Your task to perform on an android device: snooze an email in the gmail app Image 0: 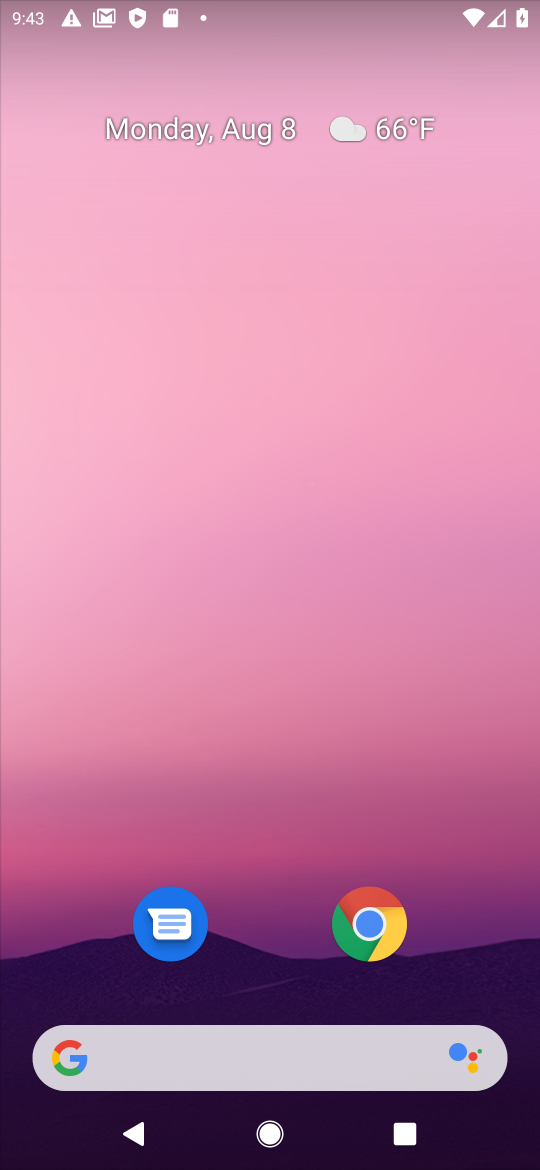
Step 0: drag from (297, 852) to (331, 23)
Your task to perform on an android device: snooze an email in the gmail app Image 1: 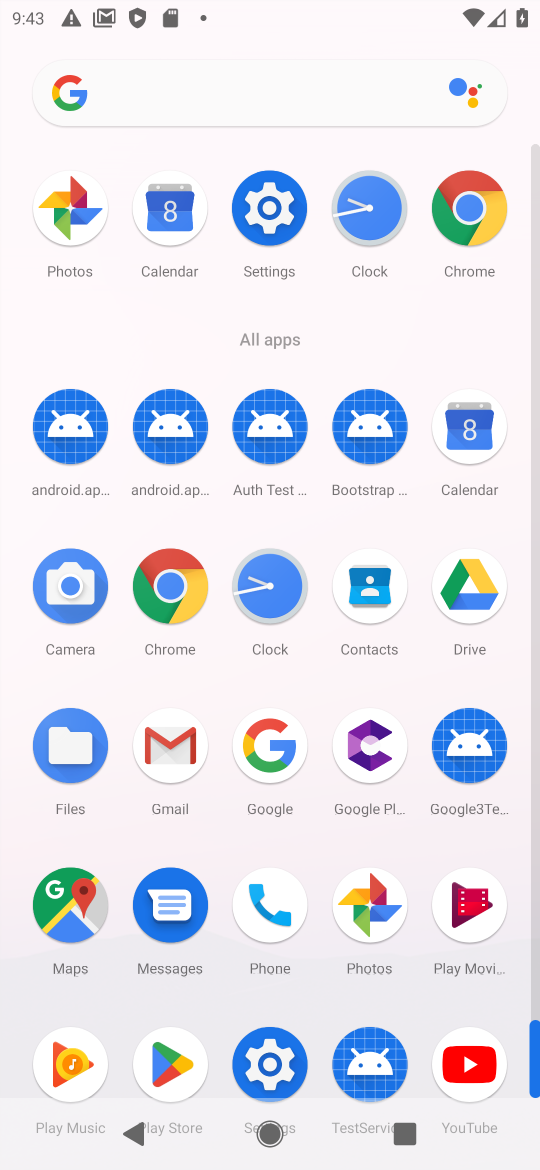
Step 1: click (175, 751)
Your task to perform on an android device: snooze an email in the gmail app Image 2: 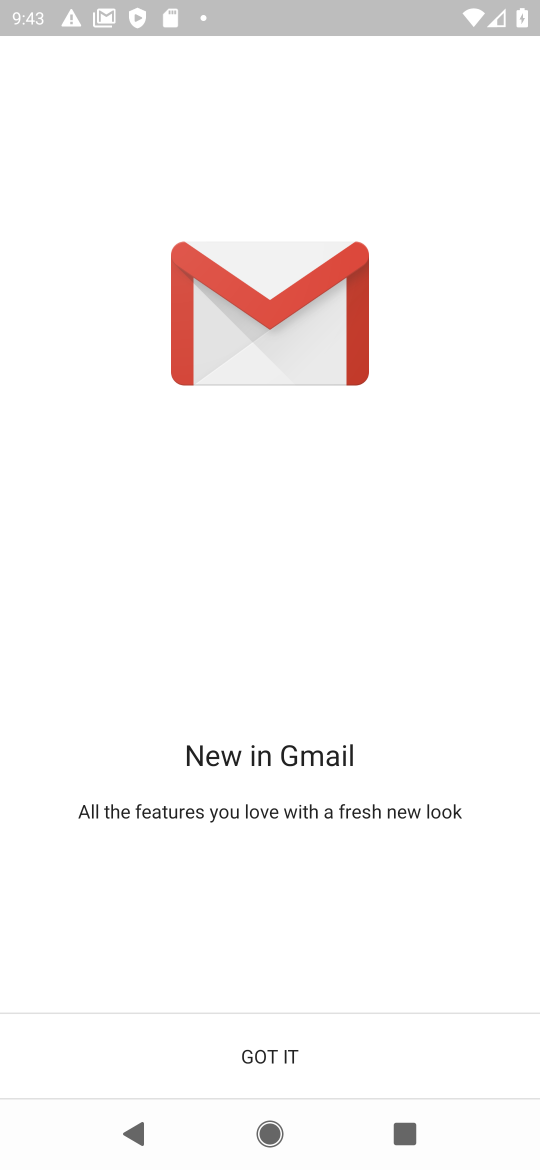
Step 2: click (271, 1072)
Your task to perform on an android device: snooze an email in the gmail app Image 3: 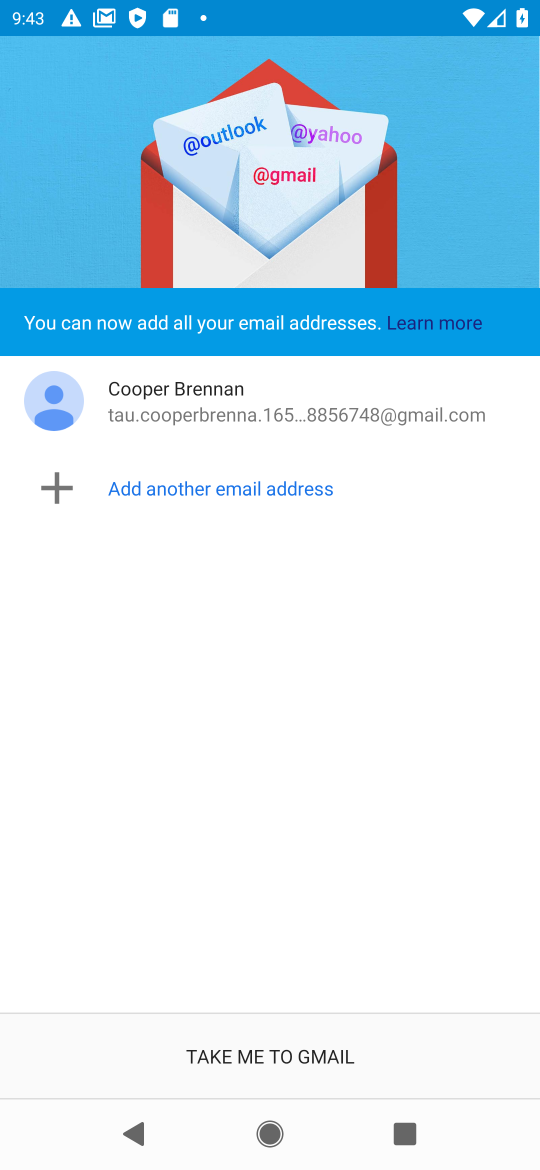
Step 3: click (268, 1058)
Your task to perform on an android device: snooze an email in the gmail app Image 4: 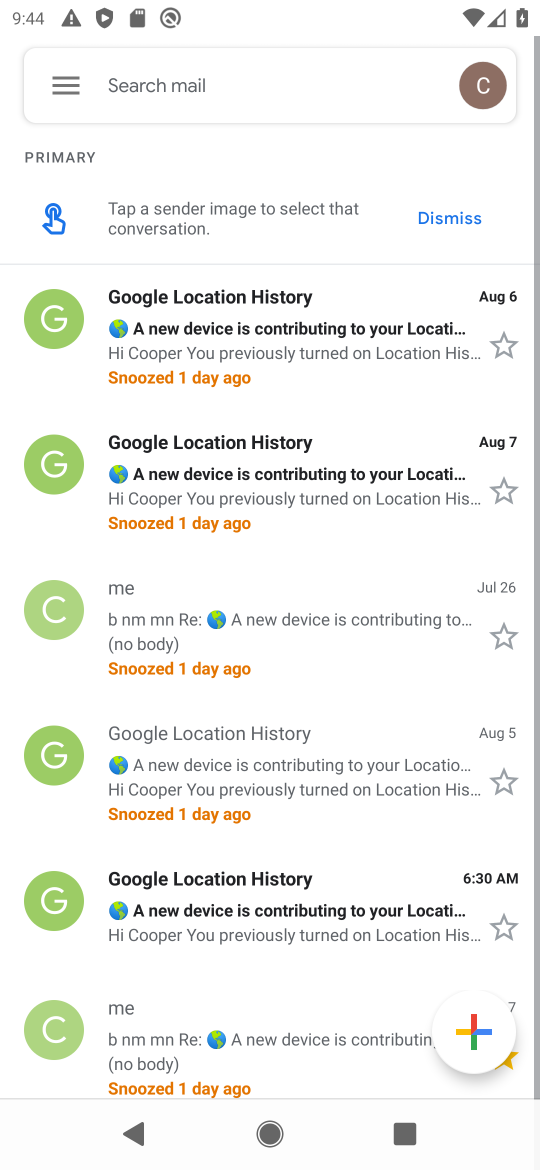
Step 4: click (55, 307)
Your task to perform on an android device: snooze an email in the gmail app Image 5: 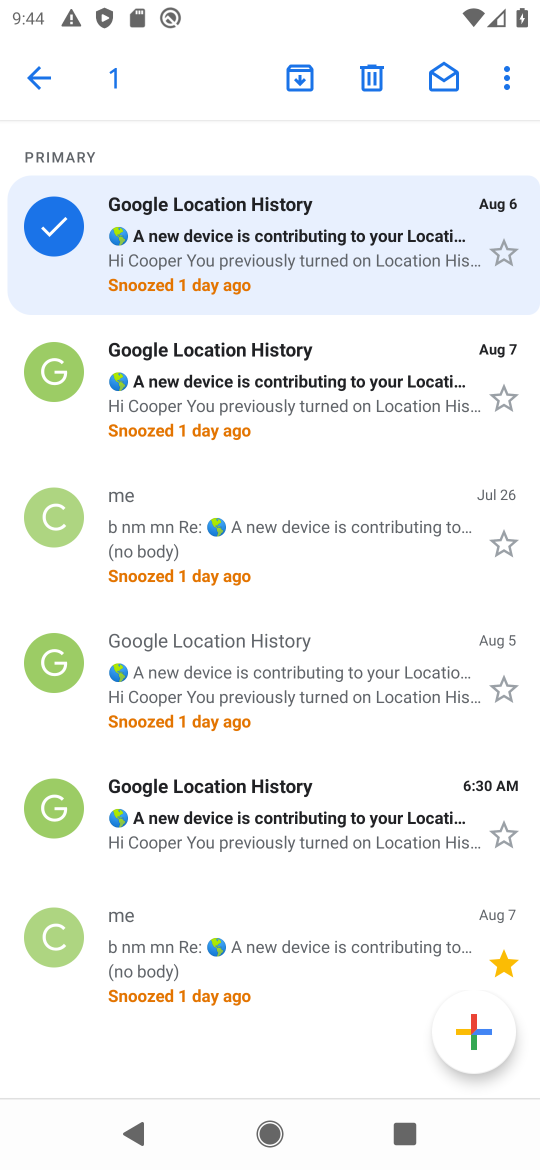
Step 5: click (512, 72)
Your task to perform on an android device: snooze an email in the gmail app Image 6: 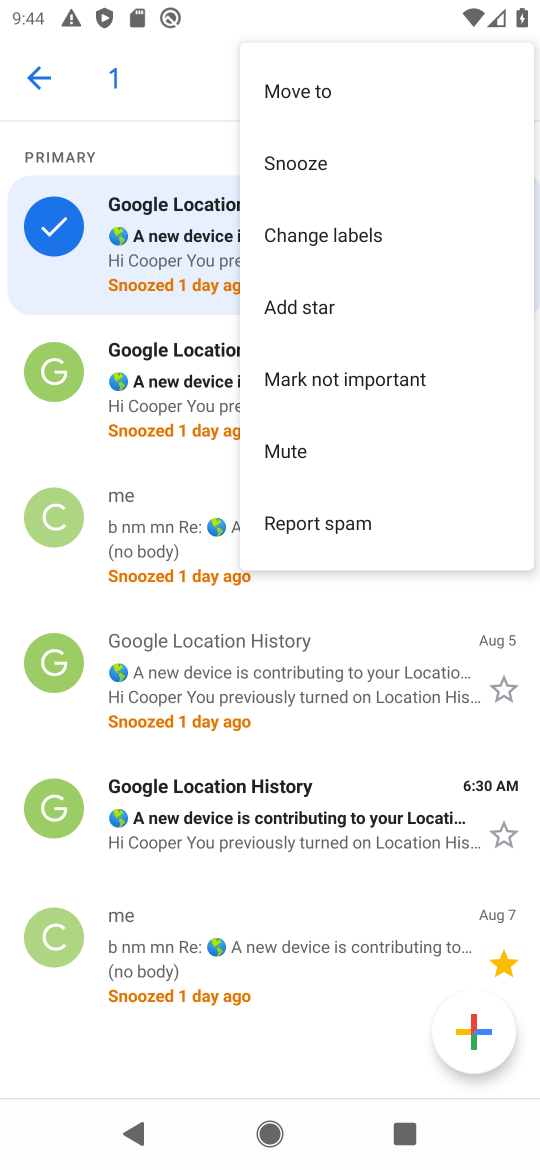
Step 6: click (278, 154)
Your task to perform on an android device: snooze an email in the gmail app Image 7: 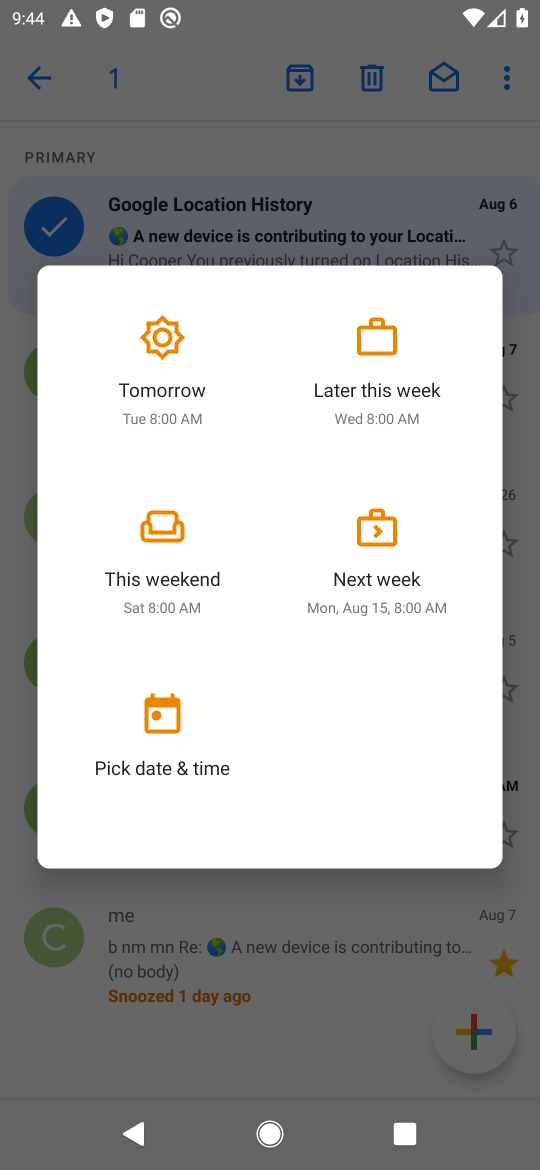
Step 7: click (382, 537)
Your task to perform on an android device: snooze an email in the gmail app Image 8: 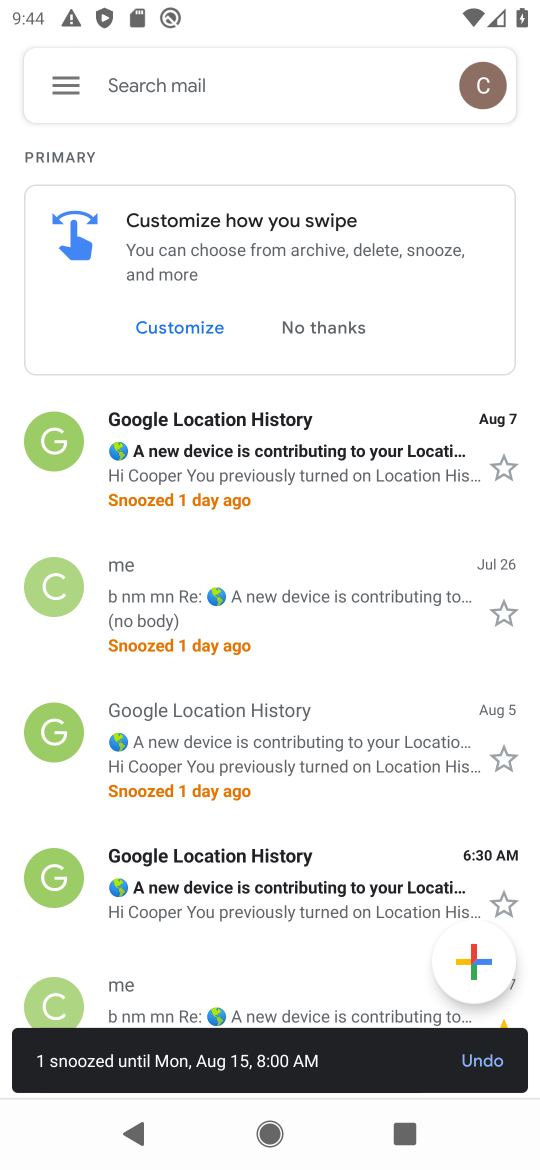
Step 8: task complete